Your task to perform on an android device: toggle pop-ups in chrome Image 0: 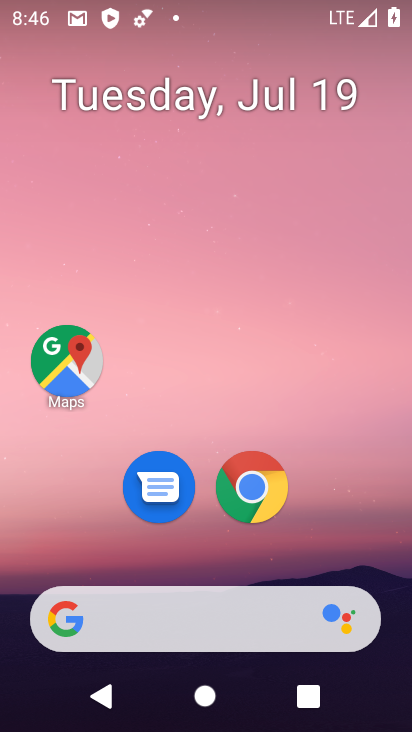
Step 0: click (264, 490)
Your task to perform on an android device: toggle pop-ups in chrome Image 1: 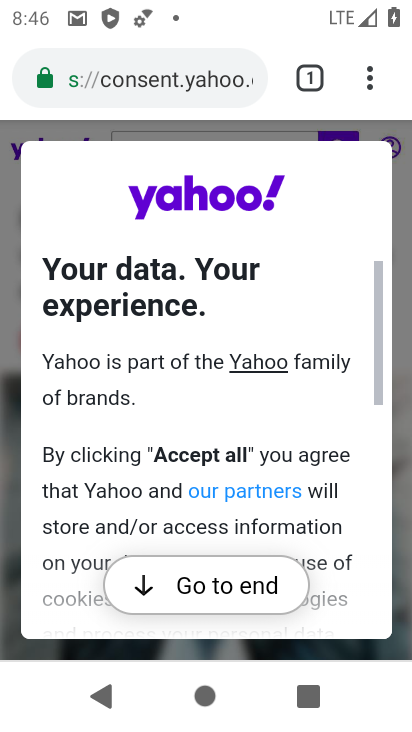
Step 1: drag from (376, 62) to (152, 550)
Your task to perform on an android device: toggle pop-ups in chrome Image 2: 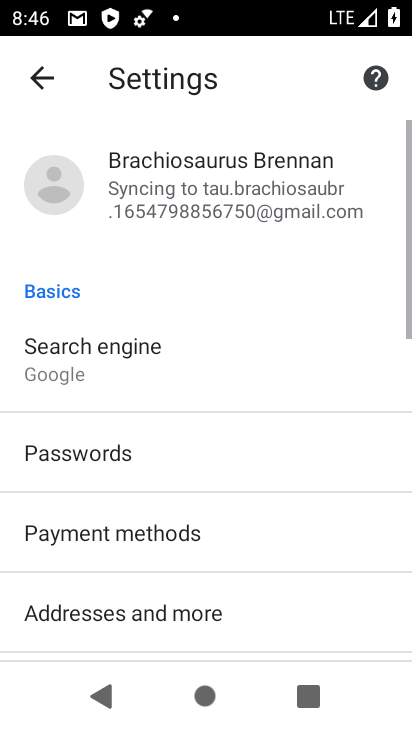
Step 2: drag from (116, 571) to (201, 128)
Your task to perform on an android device: toggle pop-ups in chrome Image 3: 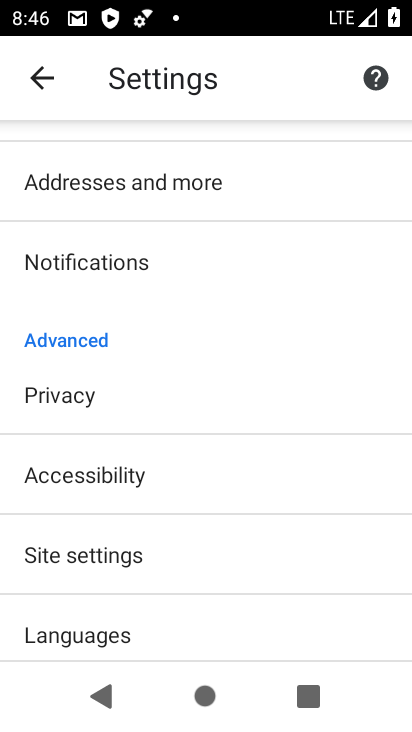
Step 3: click (97, 567)
Your task to perform on an android device: toggle pop-ups in chrome Image 4: 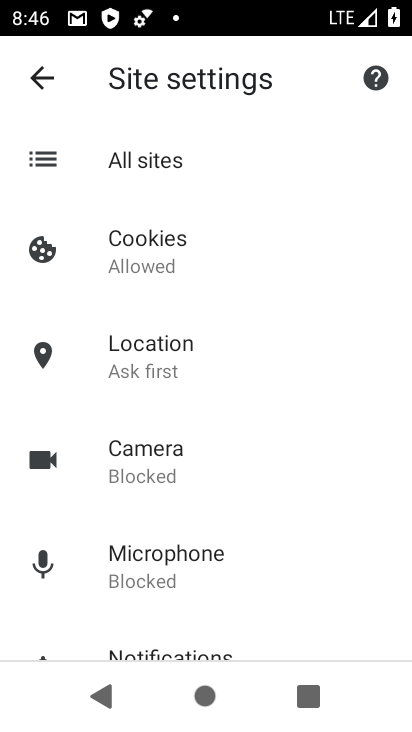
Step 4: drag from (158, 591) to (305, 127)
Your task to perform on an android device: toggle pop-ups in chrome Image 5: 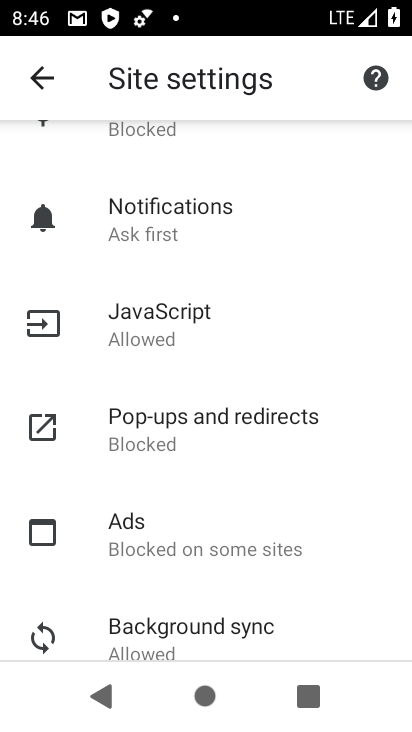
Step 5: click (208, 421)
Your task to perform on an android device: toggle pop-ups in chrome Image 6: 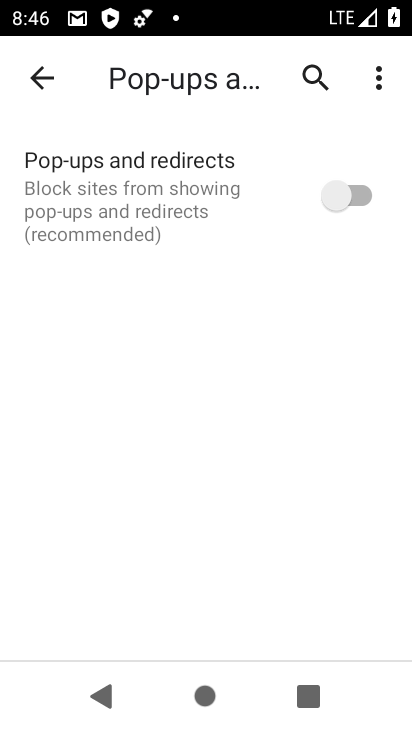
Step 6: click (340, 186)
Your task to perform on an android device: toggle pop-ups in chrome Image 7: 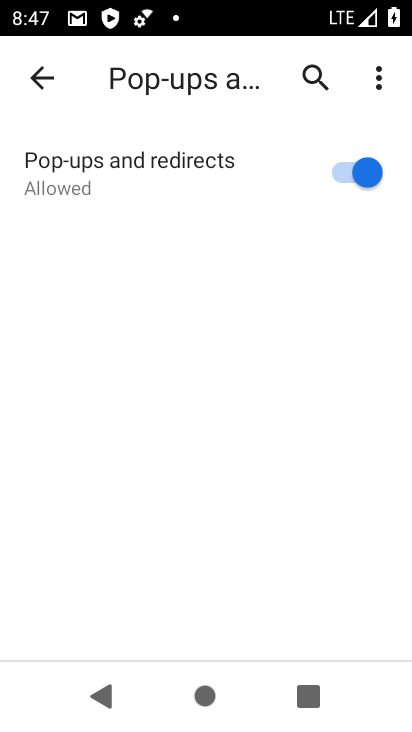
Step 7: task complete